Your task to perform on an android device: Go to Reddit.com Image 0: 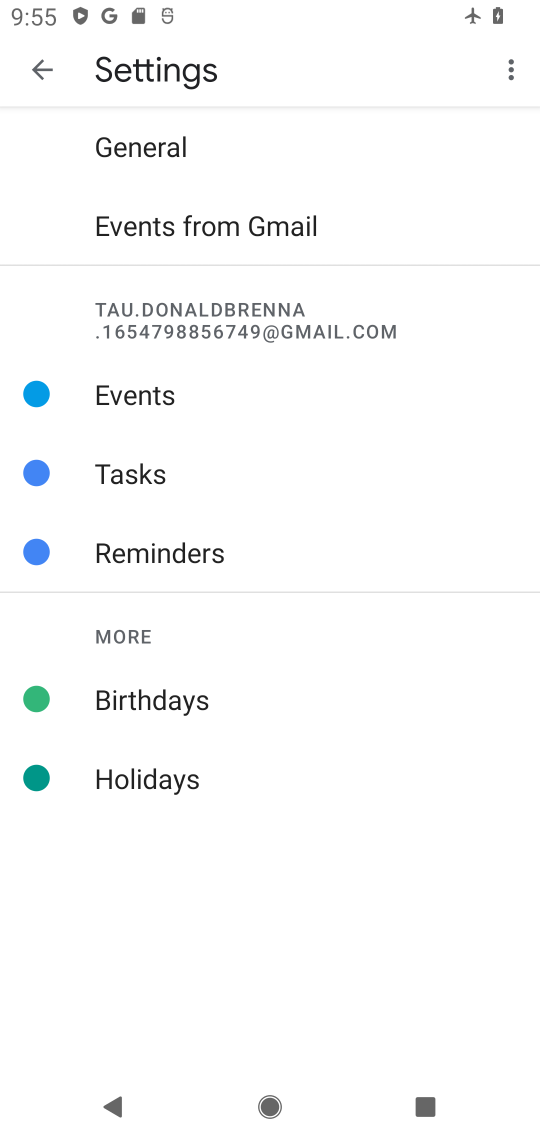
Step 0: press home button
Your task to perform on an android device: Go to Reddit.com Image 1: 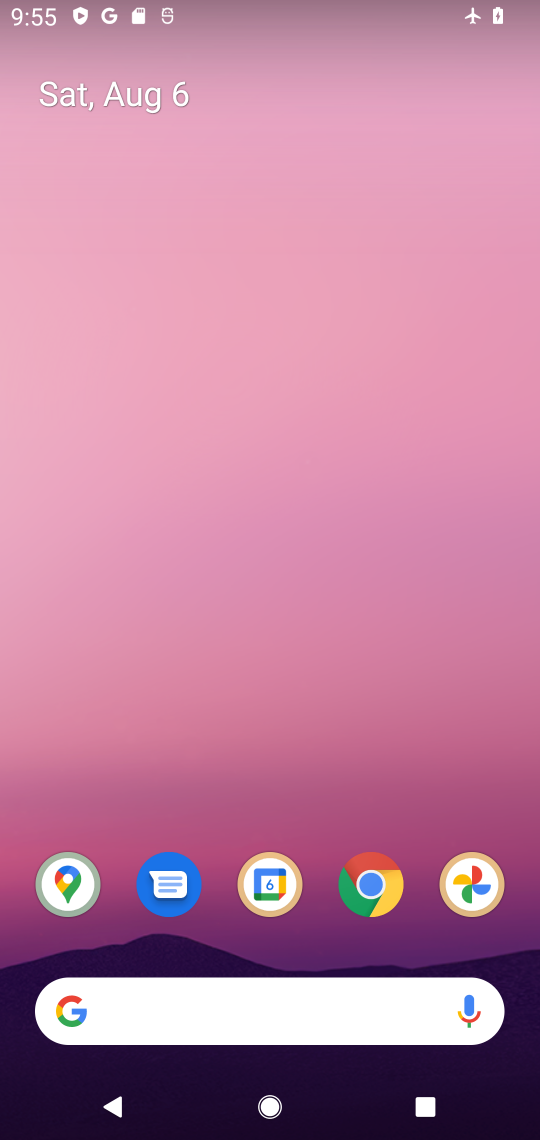
Step 1: click (371, 886)
Your task to perform on an android device: Go to Reddit.com Image 2: 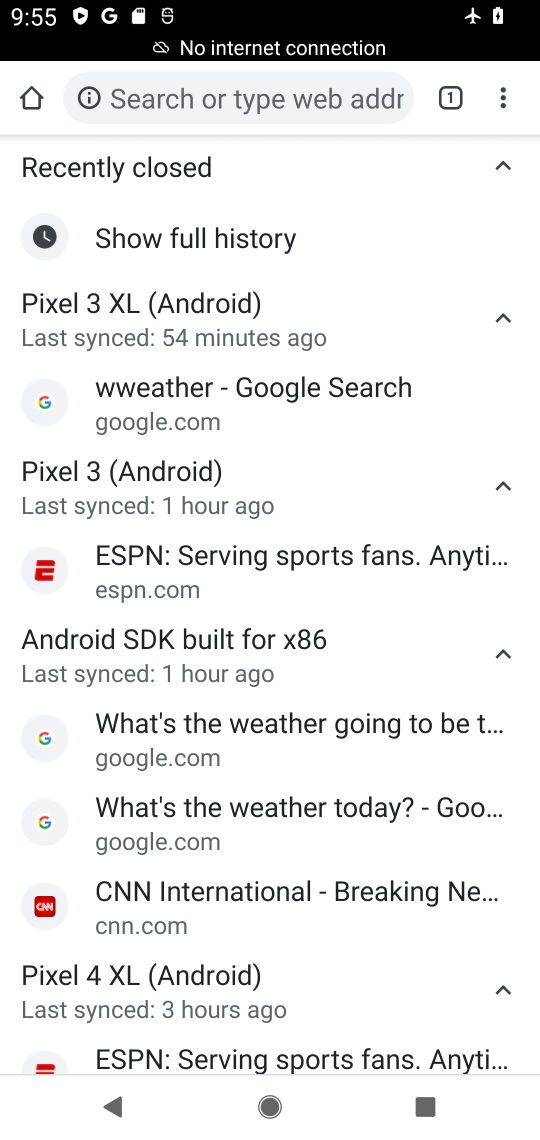
Step 2: click (327, 95)
Your task to perform on an android device: Go to Reddit.com Image 3: 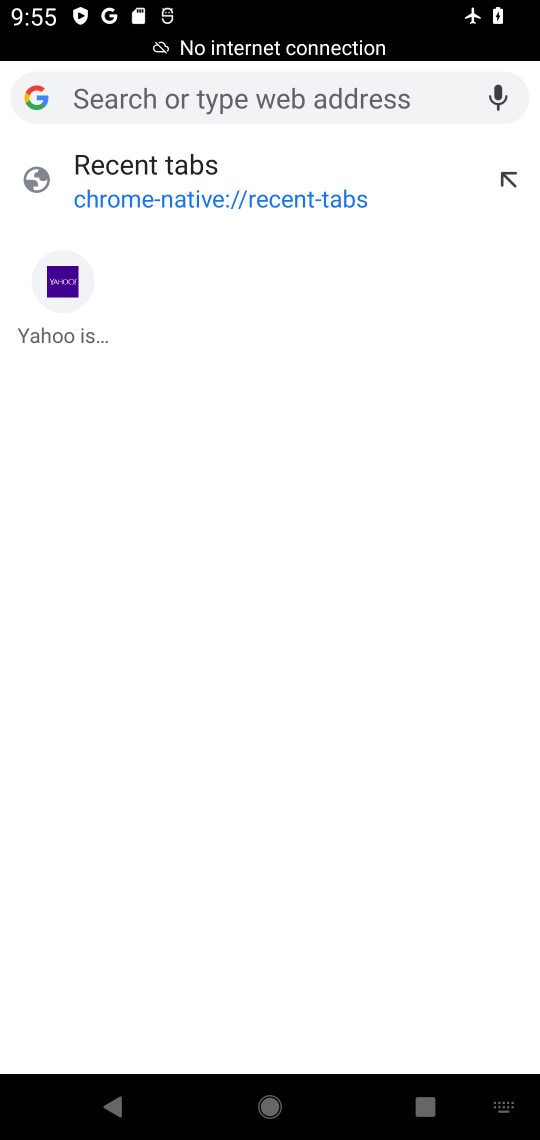
Step 3: type "Reddit.com"
Your task to perform on an android device: Go to Reddit.com Image 4: 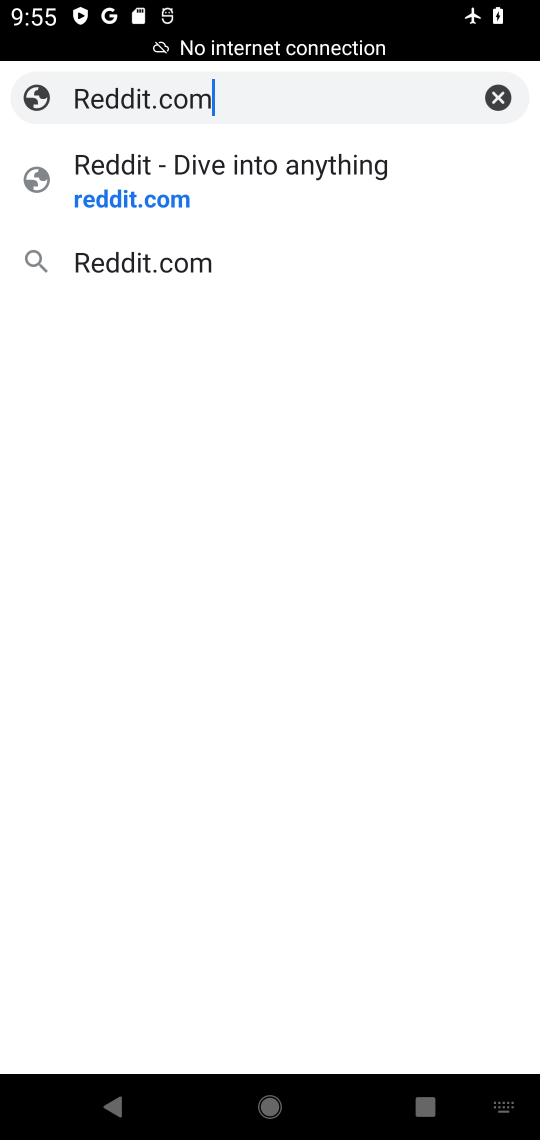
Step 4: click (136, 160)
Your task to perform on an android device: Go to Reddit.com Image 5: 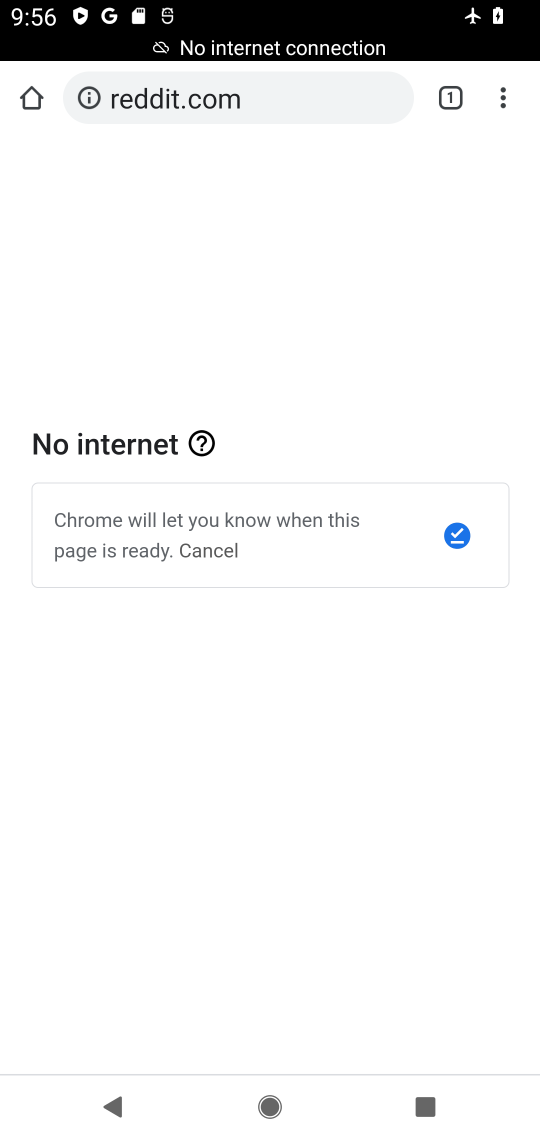
Step 5: task complete